Your task to perform on an android device: check the backup settings in the google photos Image 0: 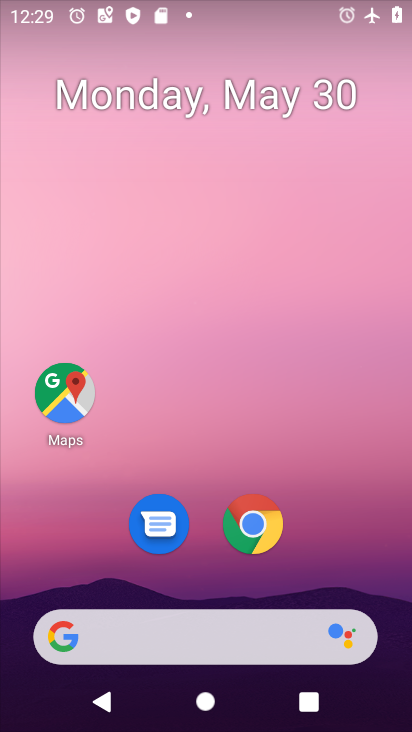
Step 0: drag from (262, 464) to (230, 8)
Your task to perform on an android device: check the backup settings in the google photos Image 1: 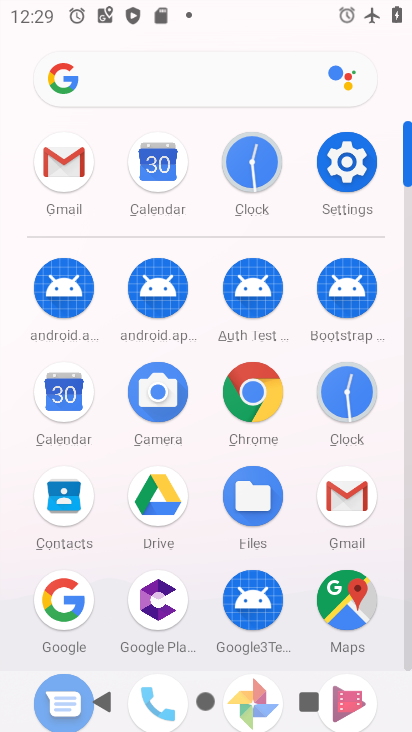
Step 1: drag from (304, 493) to (325, 288)
Your task to perform on an android device: check the backup settings in the google photos Image 2: 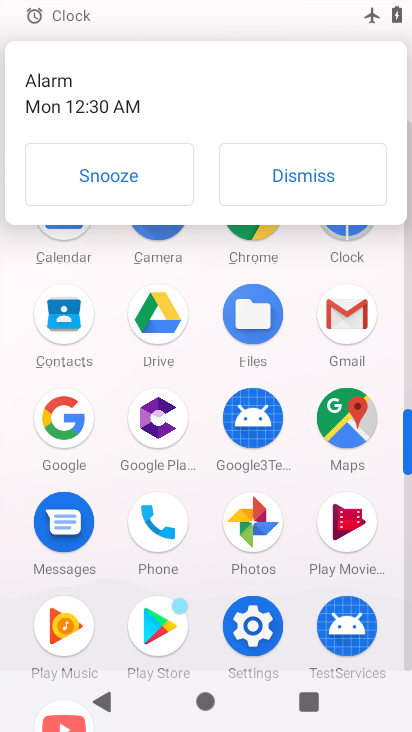
Step 2: click (257, 513)
Your task to perform on an android device: check the backup settings in the google photos Image 3: 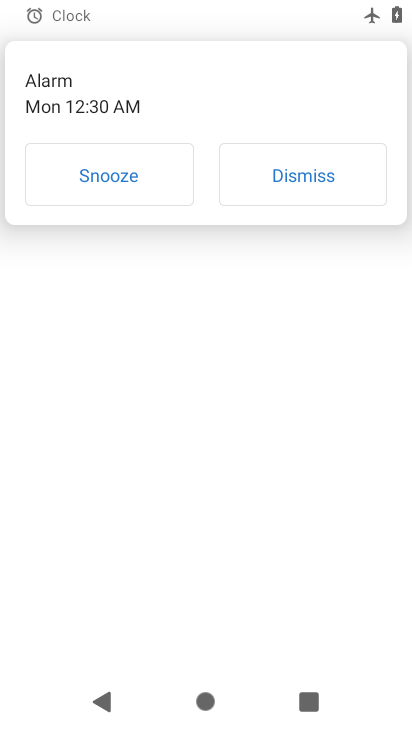
Step 3: click (316, 171)
Your task to perform on an android device: check the backup settings in the google photos Image 4: 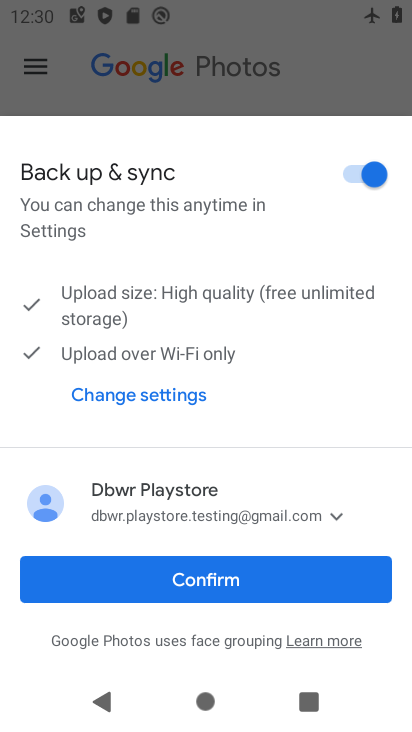
Step 4: click (264, 578)
Your task to perform on an android device: check the backup settings in the google photos Image 5: 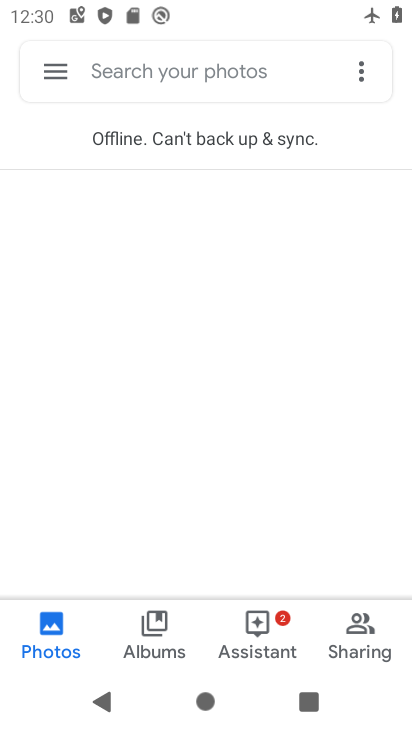
Step 5: click (56, 66)
Your task to perform on an android device: check the backup settings in the google photos Image 6: 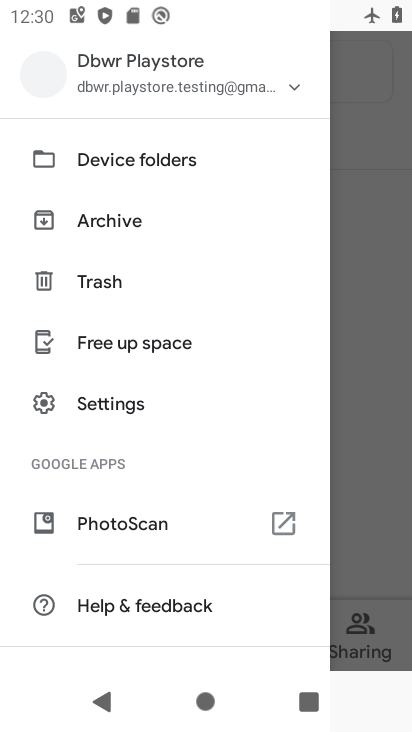
Step 6: click (129, 401)
Your task to perform on an android device: check the backup settings in the google photos Image 7: 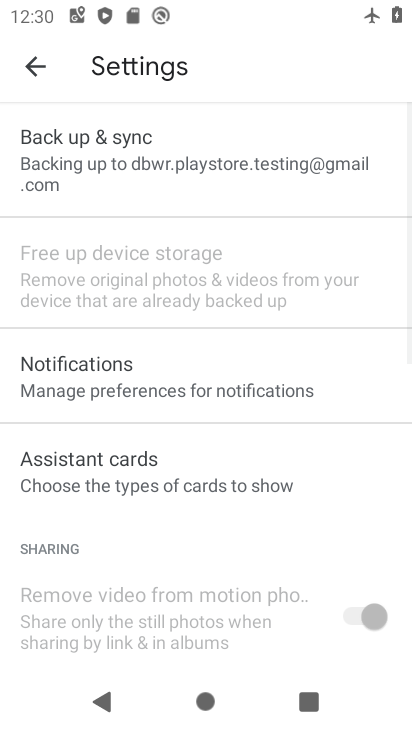
Step 7: click (175, 140)
Your task to perform on an android device: check the backup settings in the google photos Image 8: 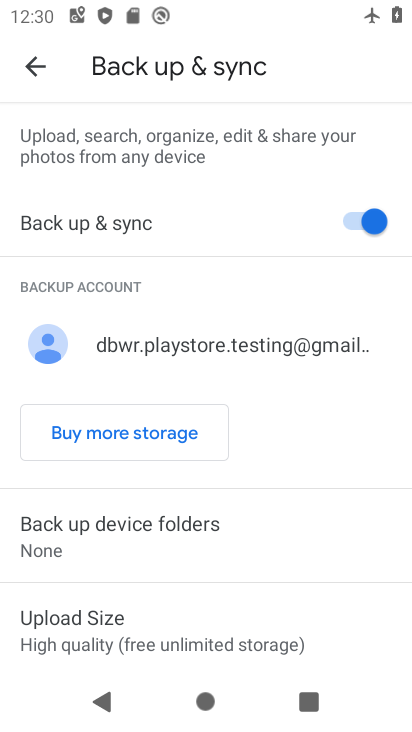
Step 8: task complete